Your task to perform on an android device: Toggle the flashlight Image 0: 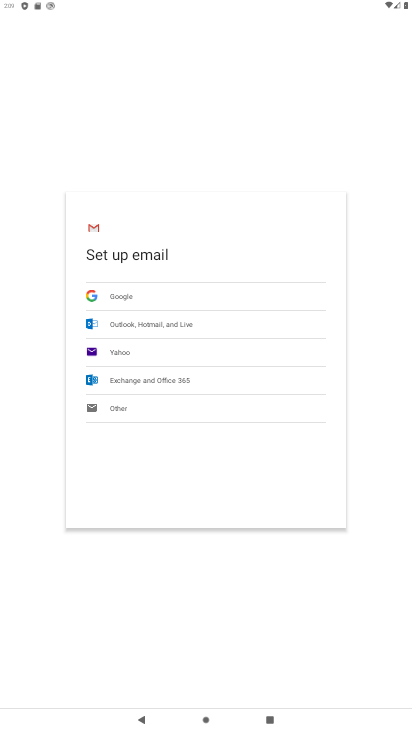
Step 0: press home button
Your task to perform on an android device: Toggle the flashlight Image 1: 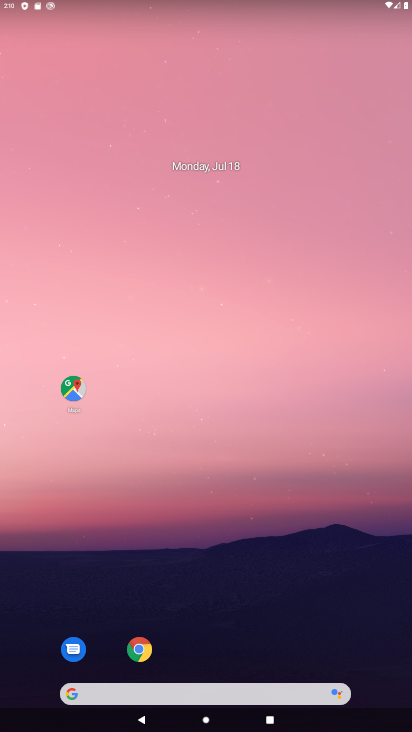
Step 1: drag from (268, 483) to (272, 74)
Your task to perform on an android device: Toggle the flashlight Image 2: 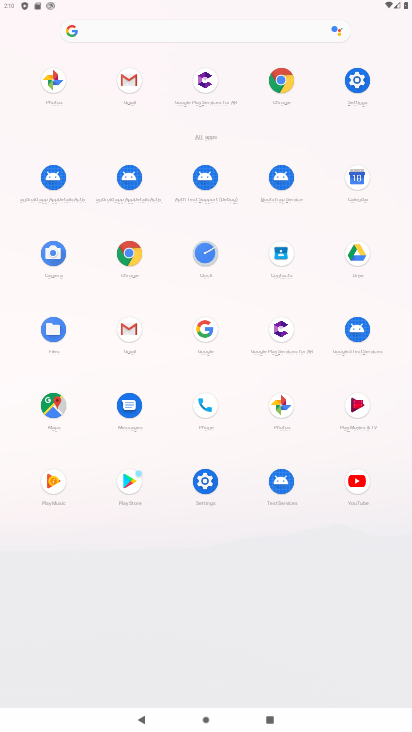
Step 2: click (347, 89)
Your task to perform on an android device: Toggle the flashlight Image 3: 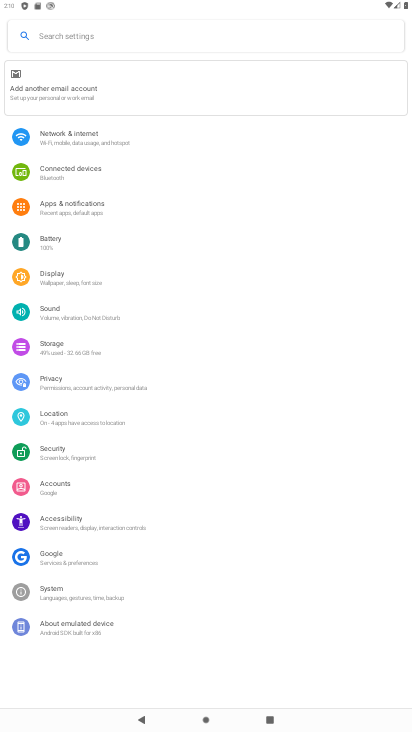
Step 3: click (144, 30)
Your task to perform on an android device: Toggle the flashlight Image 4: 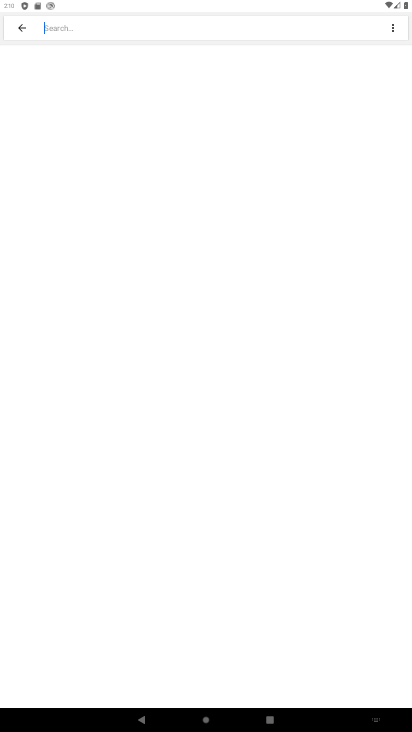
Step 4: type "flashlight"
Your task to perform on an android device: Toggle the flashlight Image 5: 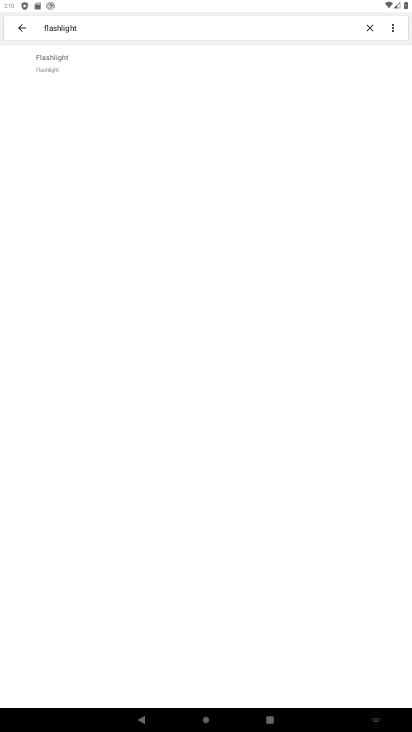
Step 5: click (181, 130)
Your task to perform on an android device: Toggle the flashlight Image 6: 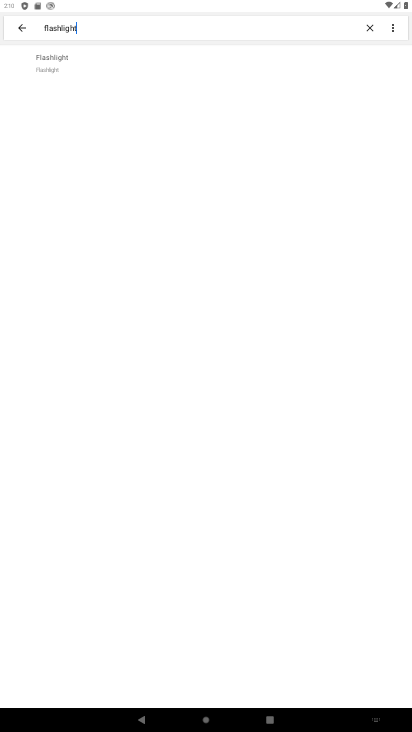
Step 6: task complete